Your task to perform on an android device: toggle improve location accuracy Image 0: 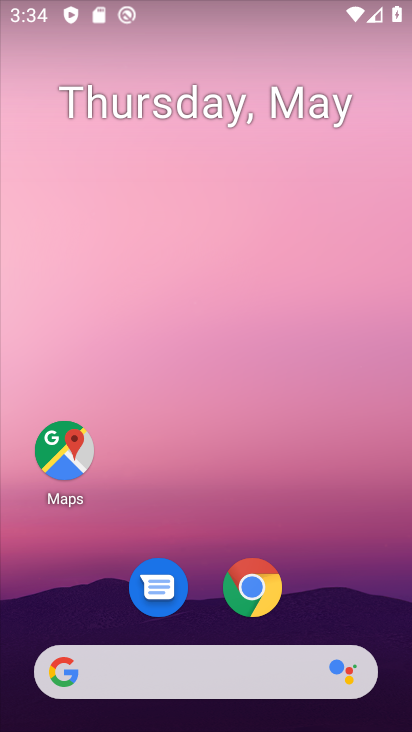
Step 0: drag from (380, 624) to (367, 200)
Your task to perform on an android device: toggle improve location accuracy Image 1: 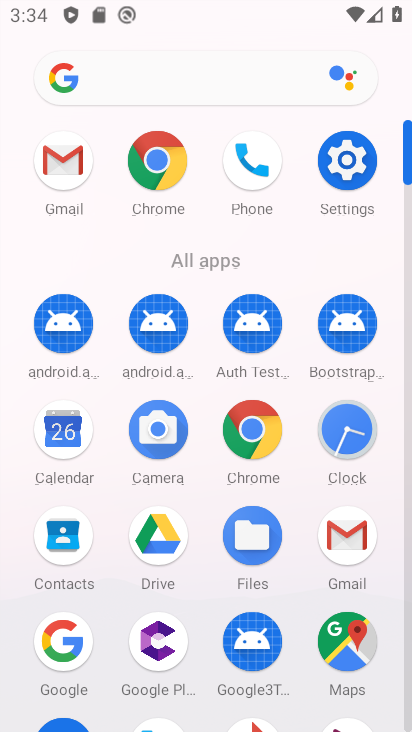
Step 1: click (346, 177)
Your task to perform on an android device: toggle improve location accuracy Image 2: 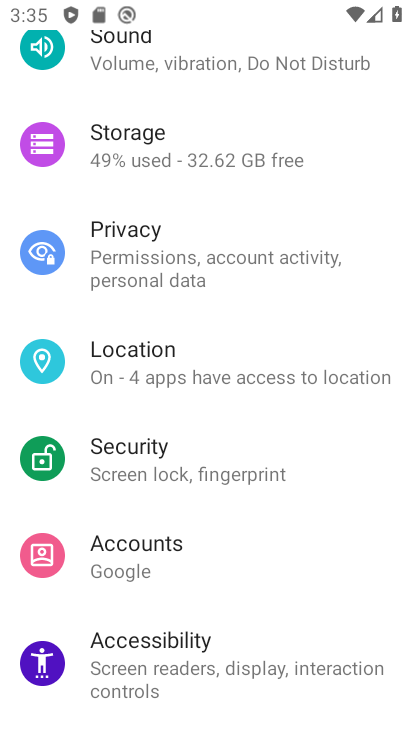
Step 2: drag from (365, 190) to (363, 350)
Your task to perform on an android device: toggle improve location accuracy Image 3: 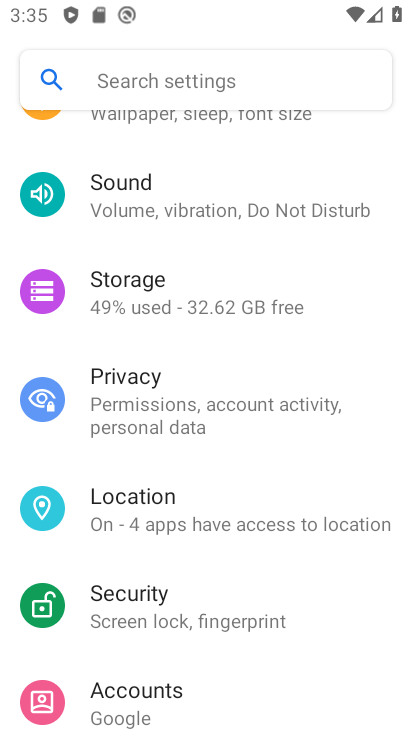
Step 3: drag from (374, 169) to (374, 303)
Your task to perform on an android device: toggle improve location accuracy Image 4: 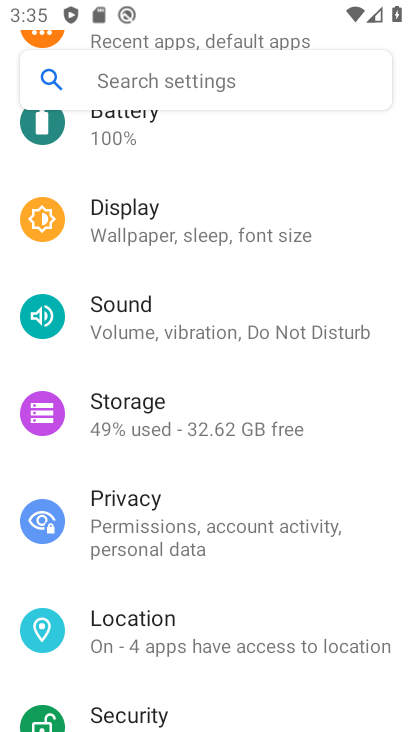
Step 4: drag from (373, 175) to (365, 323)
Your task to perform on an android device: toggle improve location accuracy Image 5: 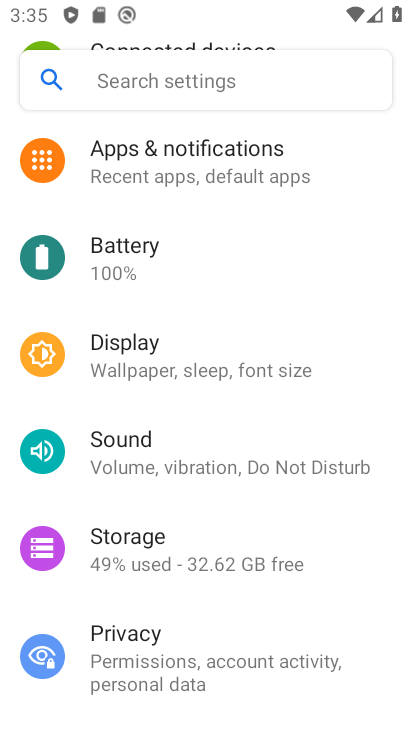
Step 5: drag from (362, 157) to (361, 323)
Your task to perform on an android device: toggle improve location accuracy Image 6: 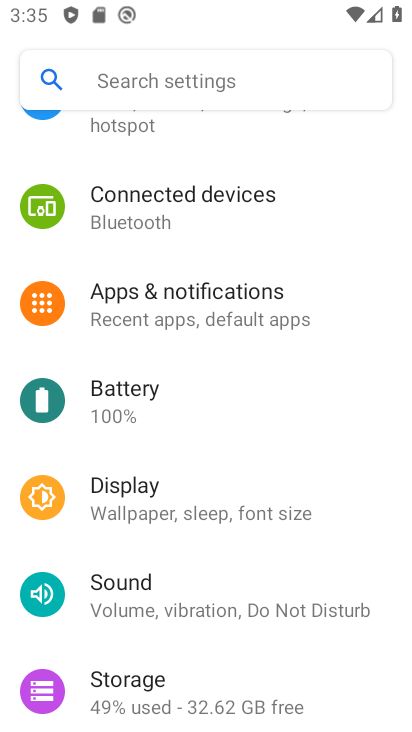
Step 6: drag from (373, 152) to (360, 333)
Your task to perform on an android device: toggle improve location accuracy Image 7: 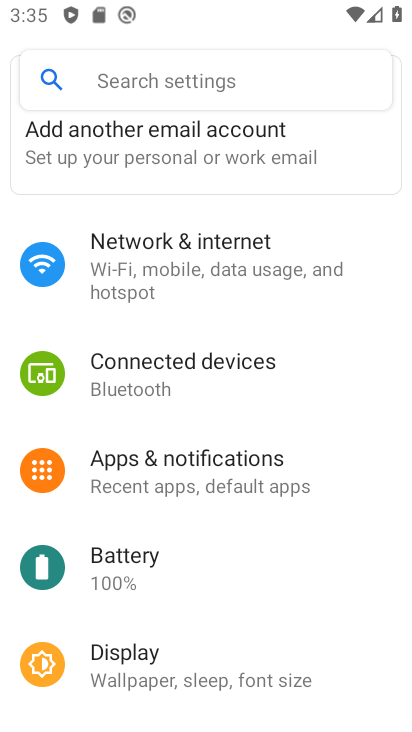
Step 7: drag from (371, 143) to (359, 316)
Your task to perform on an android device: toggle improve location accuracy Image 8: 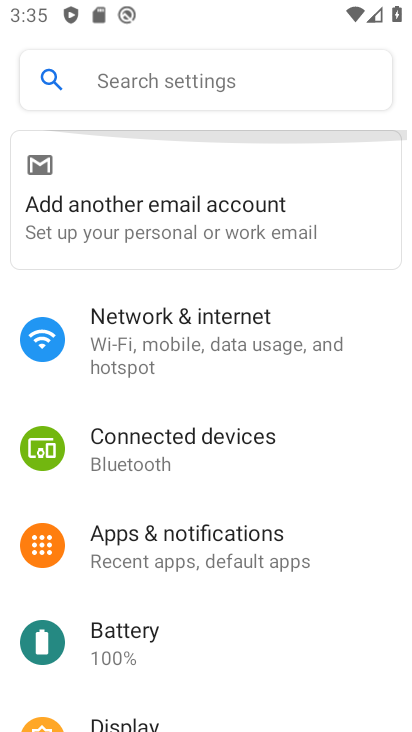
Step 8: drag from (360, 319) to (360, 156)
Your task to perform on an android device: toggle improve location accuracy Image 9: 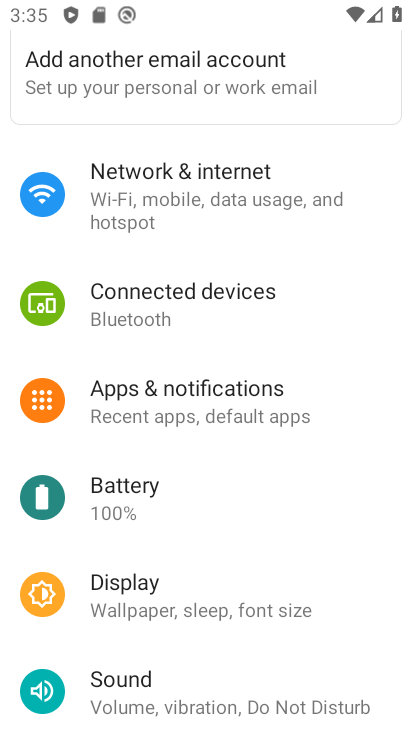
Step 9: drag from (357, 375) to (373, 276)
Your task to perform on an android device: toggle improve location accuracy Image 10: 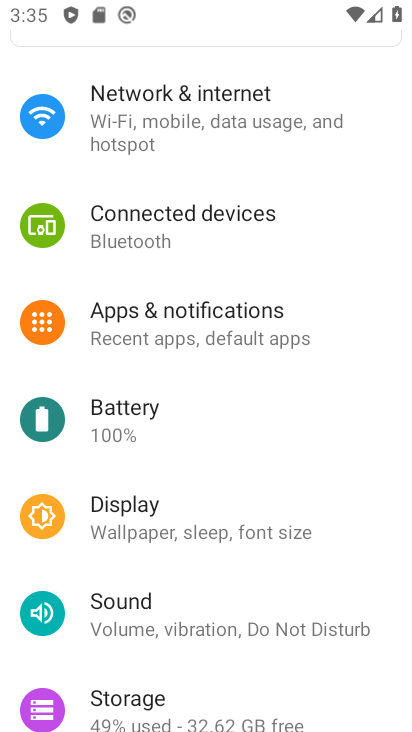
Step 10: drag from (348, 398) to (358, 225)
Your task to perform on an android device: toggle improve location accuracy Image 11: 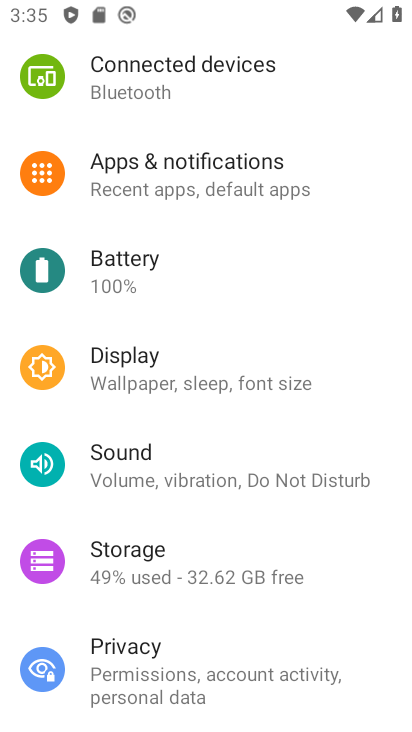
Step 11: drag from (328, 439) to (353, 220)
Your task to perform on an android device: toggle improve location accuracy Image 12: 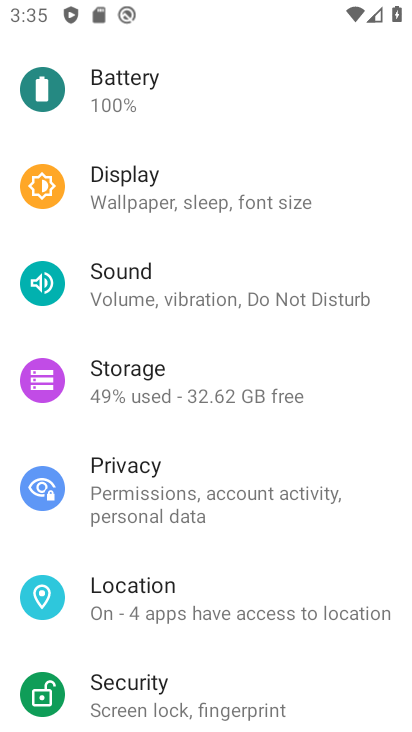
Step 12: drag from (342, 457) to (355, 293)
Your task to perform on an android device: toggle improve location accuracy Image 13: 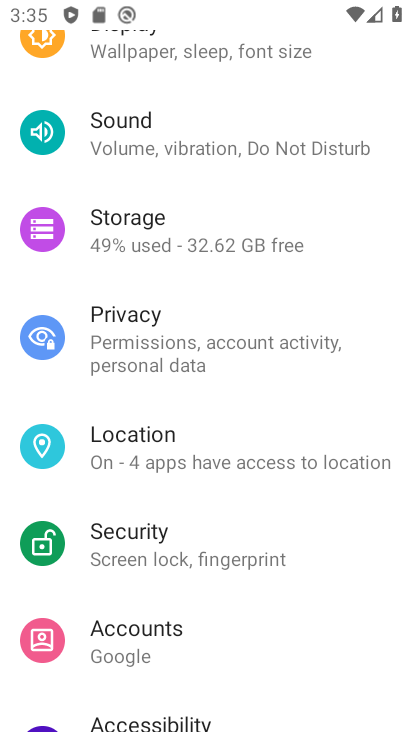
Step 13: drag from (329, 539) to (338, 353)
Your task to perform on an android device: toggle improve location accuracy Image 14: 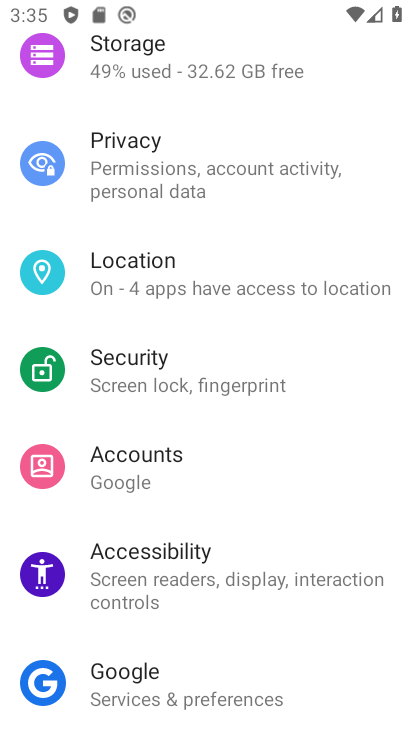
Step 14: click (316, 280)
Your task to perform on an android device: toggle improve location accuracy Image 15: 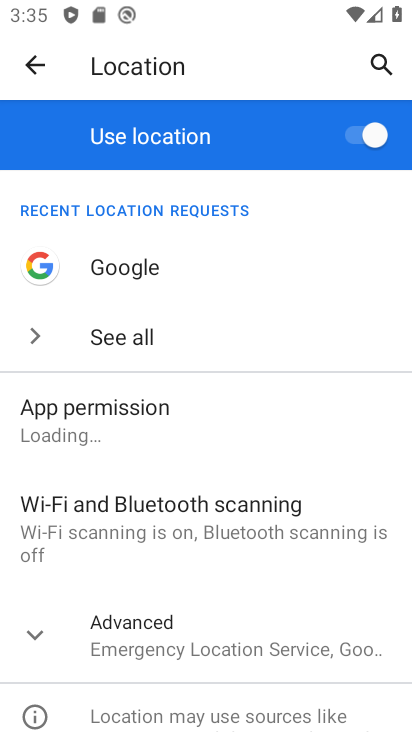
Step 15: drag from (319, 561) to (346, 374)
Your task to perform on an android device: toggle improve location accuracy Image 16: 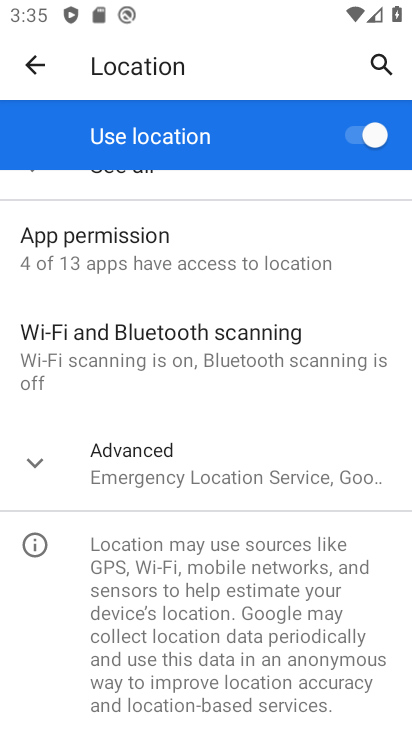
Step 16: click (294, 489)
Your task to perform on an android device: toggle improve location accuracy Image 17: 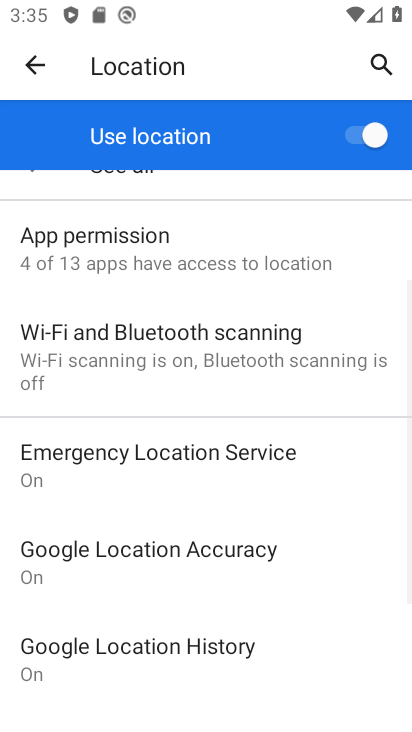
Step 17: drag from (296, 601) to (302, 448)
Your task to perform on an android device: toggle improve location accuracy Image 18: 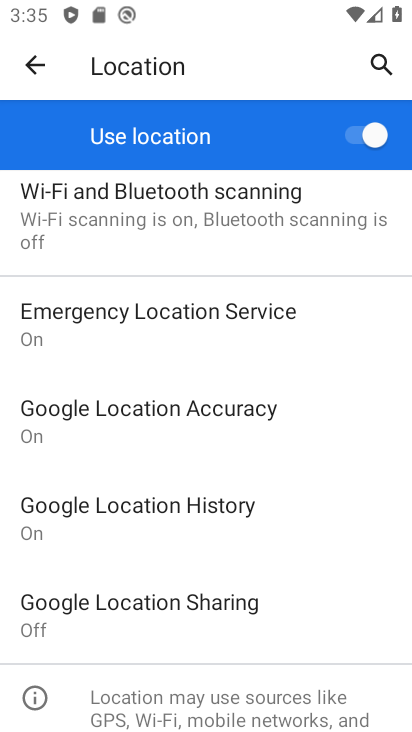
Step 18: drag from (311, 619) to (328, 426)
Your task to perform on an android device: toggle improve location accuracy Image 19: 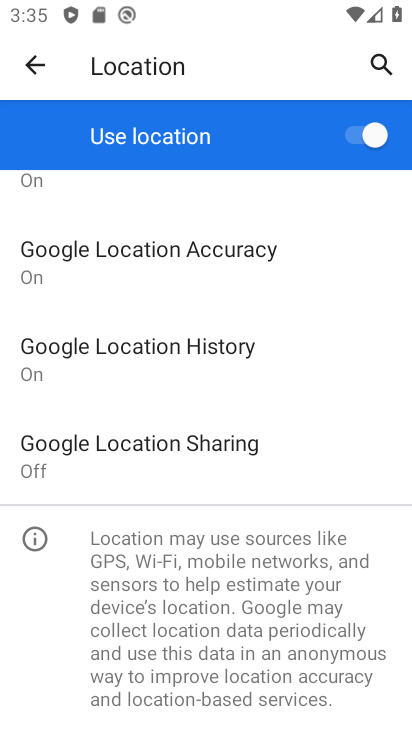
Step 19: click (135, 256)
Your task to perform on an android device: toggle improve location accuracy Image 20: 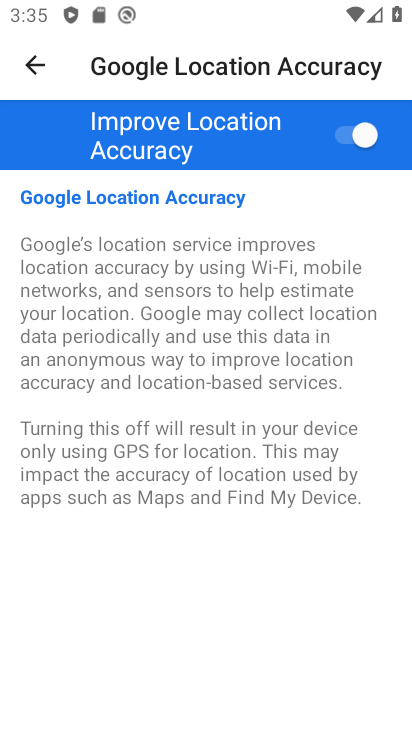
Step 20: click (363, 139)
Your task to perform on an android device: toggle improve location accuracy Image 21: 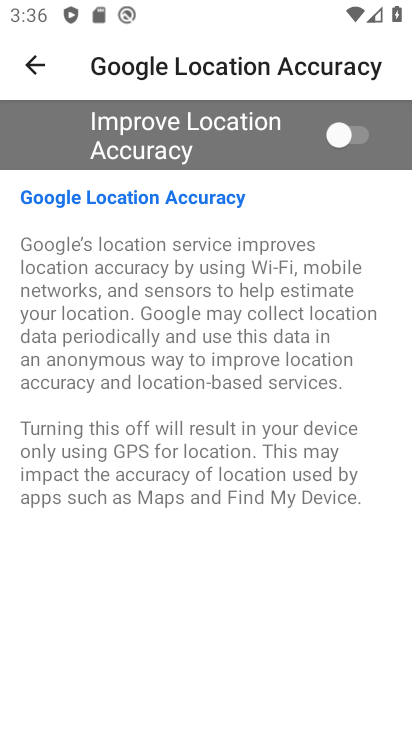
Step 21: task complete